Your task to perform on an android device: Open Google Maps and go to "Timeline" Image 0: 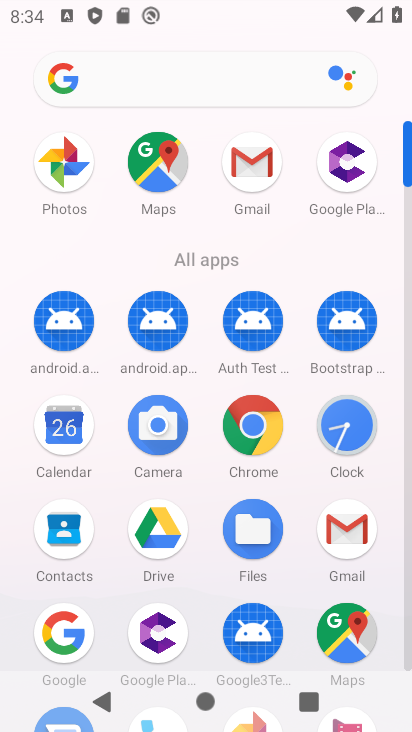
Step 0: press home button
Your task to perform on an android device: Open Google Maps and go to "Timeline" Image 1: 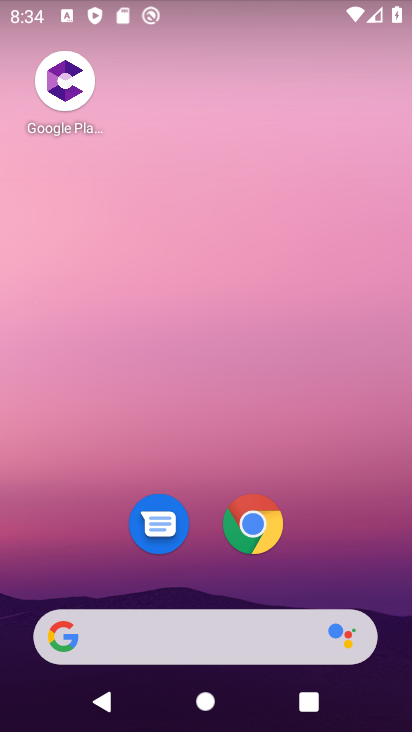
Step 1: drag from (218, 421) to (279, 7)
Your task to perform on an android device: Open Google Maps and go to "Timeline" Image 2: 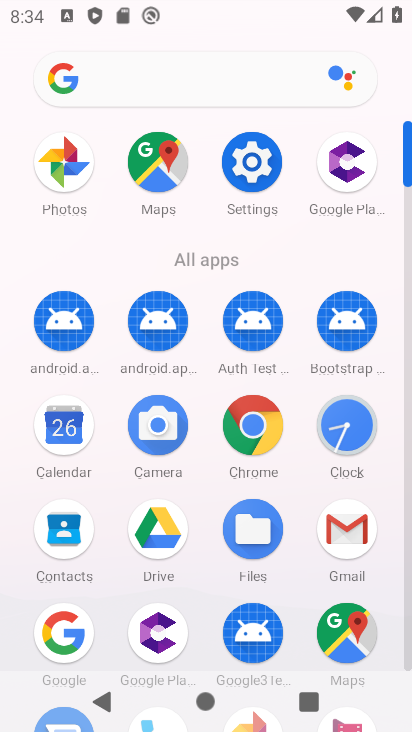
Step 2: click (163, 168)
Your task to perform on an android device: Open Google Maps and go to "Timeline" Image 3: 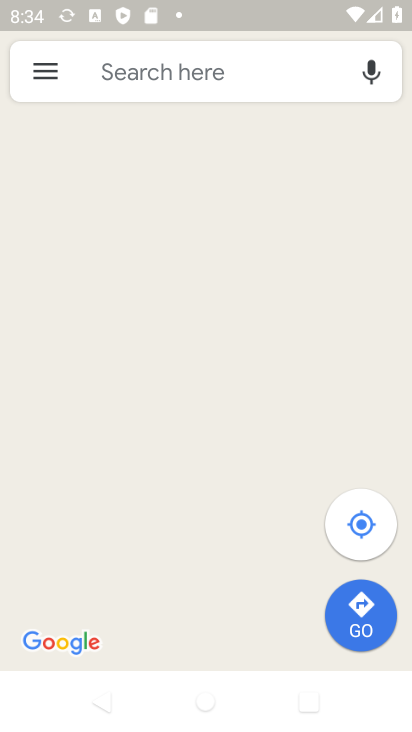
Step 3: click (47, 66)
Your task to perform on an android device: Open Google Maps and go to "Timeline" Image 4: 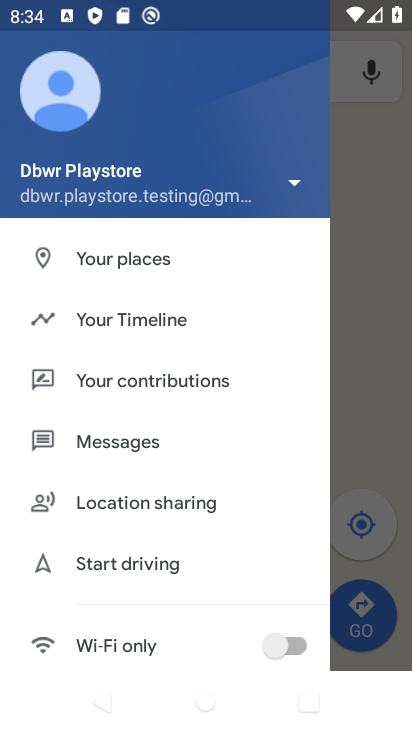
Step 4: click (125, 313)
Your task to perform on an android device: Open Google Maps and go to "Timeline" Image 5: 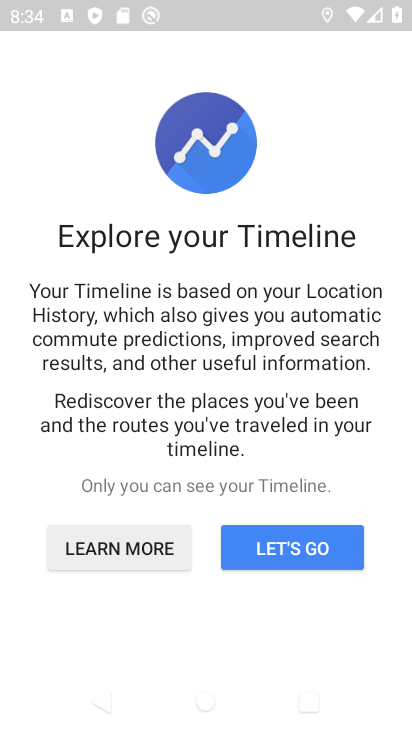
Step 5: click (305, 551)
Your task to perform on an android device: Open Google Maps and go to "Timeline" Image 6: 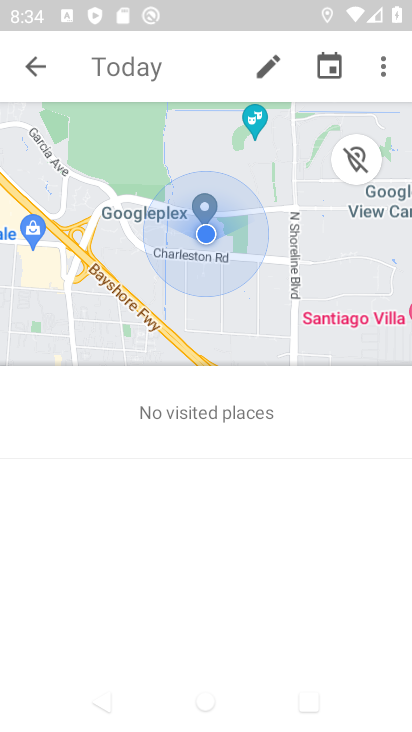
Step 6: task complete